Your task to perform on an android device: change notifications settings Image 0: 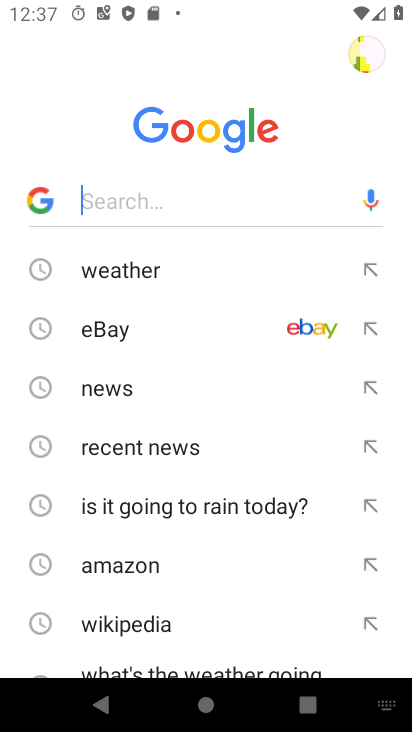
Step 0: press home button
Your task to perform on an android device: change notifications settings Image 1: 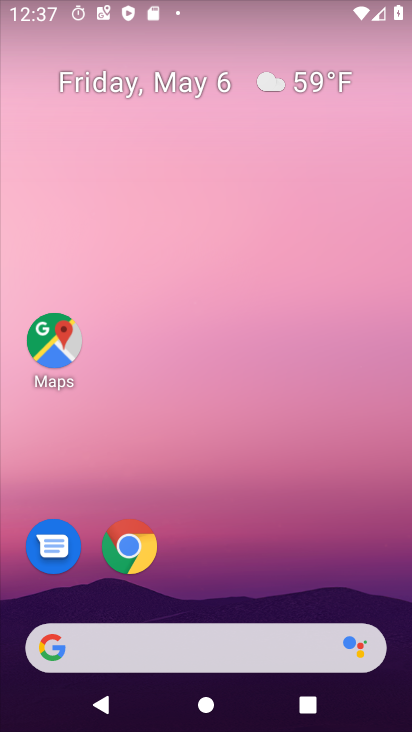
Step 1: drag from (295, 558) to (276, 97)
Your task to perform on an android device: change notifications settings Image 2: 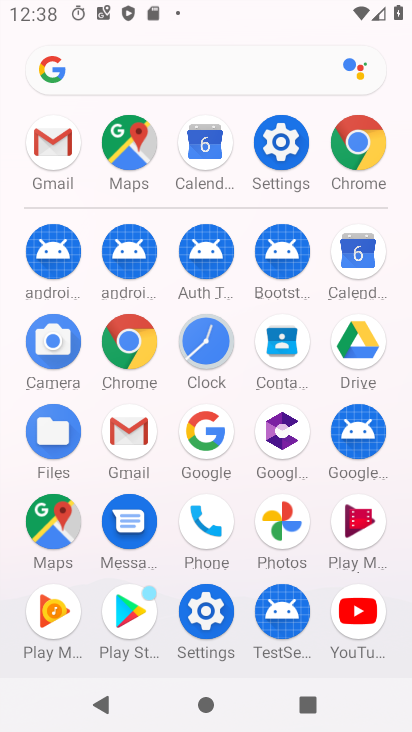
Step 2: click (276, 147)
Your task to perform on an android device: change notifications settings Image 3: 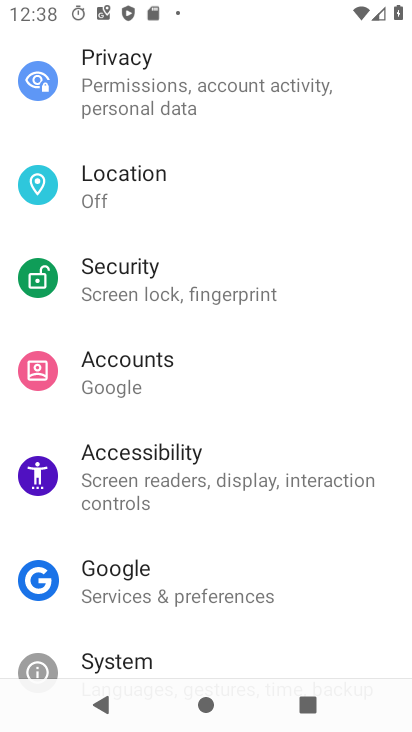
Step 3: drag from (298, 200) to (280, 549)
Your task to perform on an android device: change notifications settings Image 4: 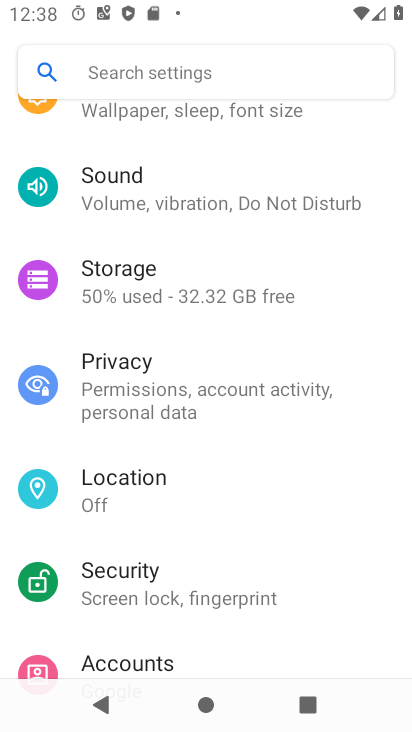
Step 4: drag from (220, 158) to (206, 495)
Your task to perform on an android device: change notifications settings Image 5: 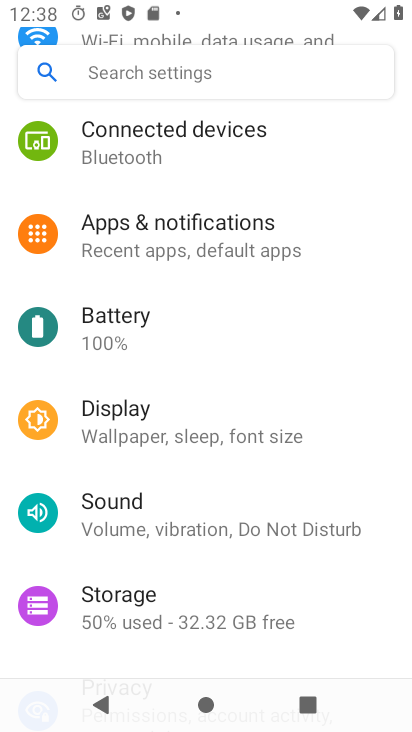
Step 5: click (188, 238)
Your task to perform on an android device: change notifications settings Image 6: 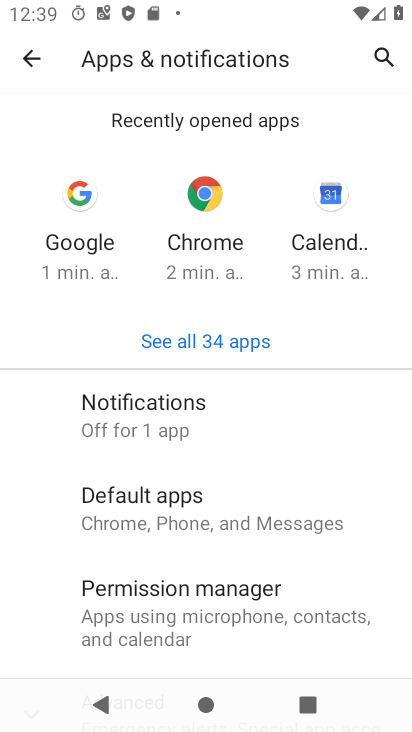
Step 6: click (192, 428)
Your task to perform on an android device: change notifications settings Image 7: 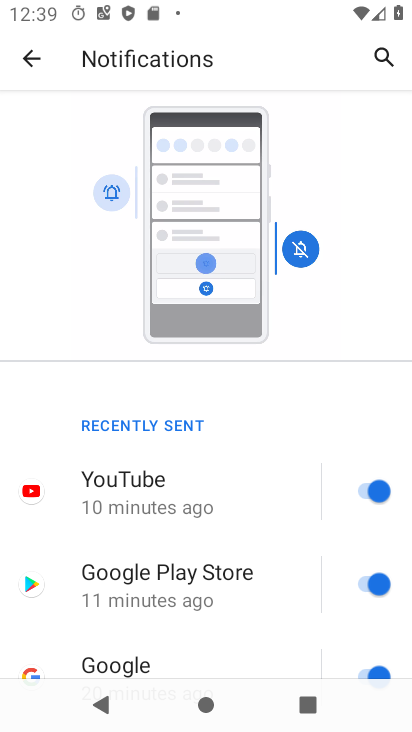
Step 7: click (353, 587)
Your task to perform on an android device: change notifications settings Image 8: 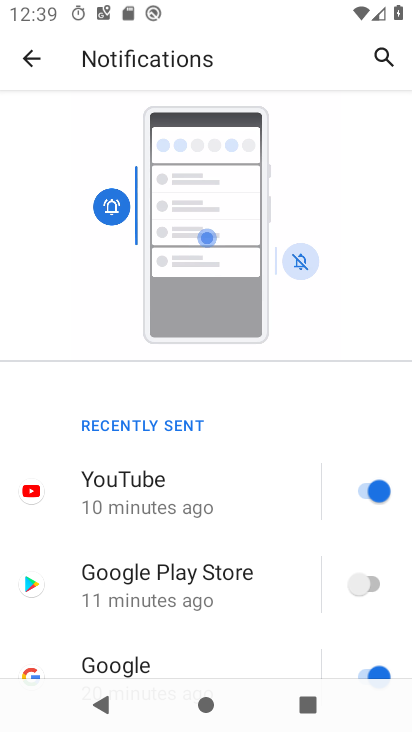
Step 8: task complete